Your task to perform on an android device: stop showing notifications on the lock screen Image 0: 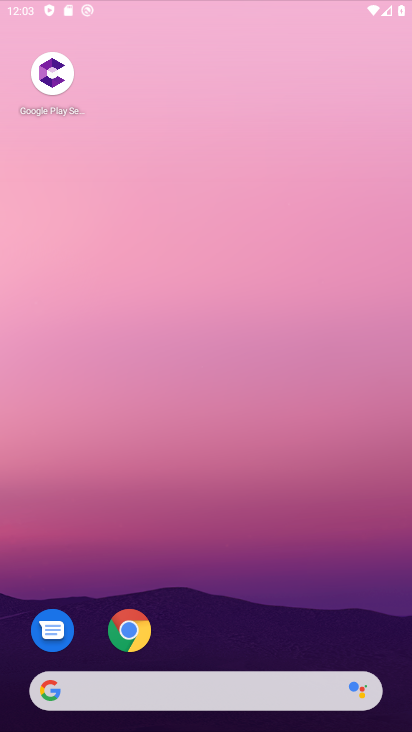
Step 0: click (227, 166)
Your task to perform on an android device: stop showing notifications on the lock screen Image 1: 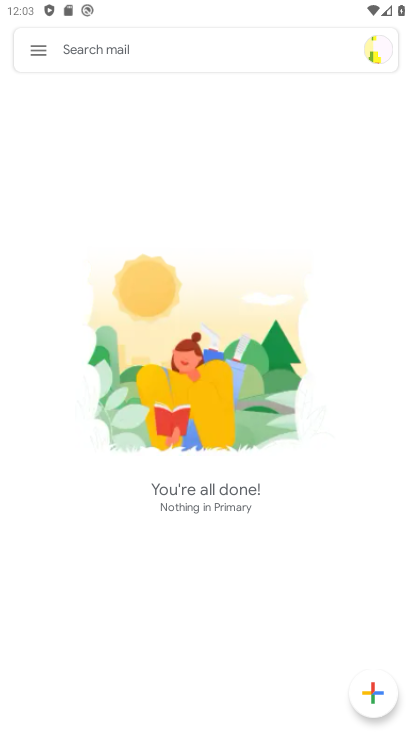
Step 1: drag from (230, 200) to (203, 18)
Your task to perform on an android device: stop showing notifications on the lock screen Image 2: 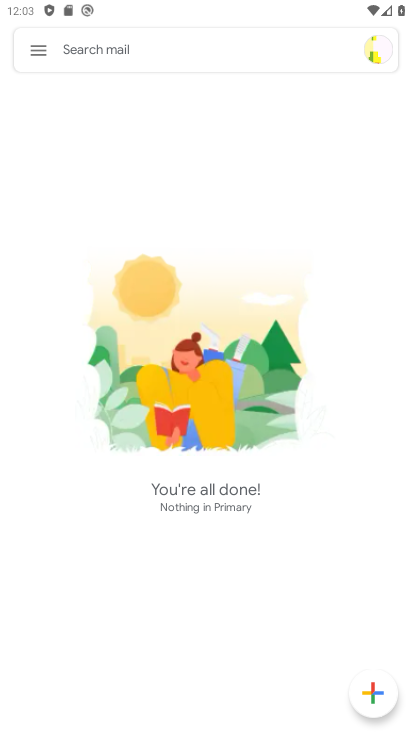
Step 2: press home button
Your task to perform on an android device: stop showing notifications on the lock screen Image 3: 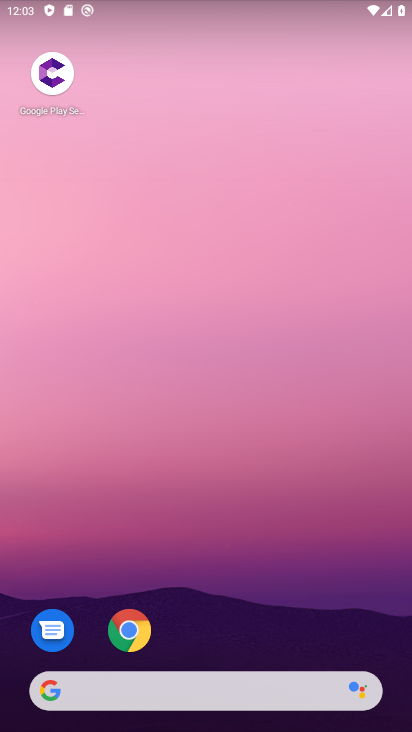
Step 3: drag from (201, 624) to (175, 79)
Your task to perform on an android device: stop showing notifications on the lock screen Image 4: 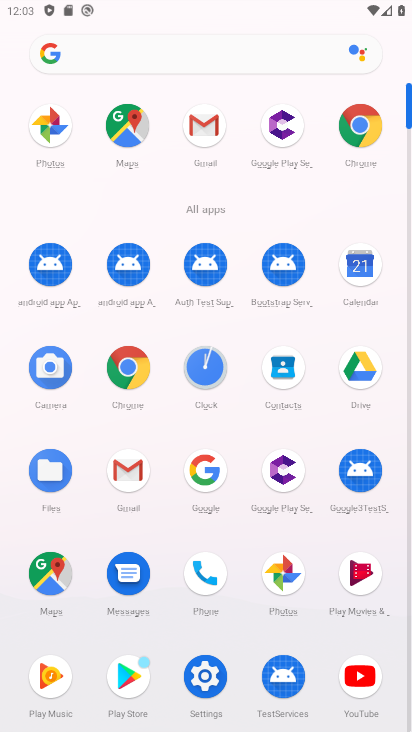
Step 4: click (201, 672)
Your task to perform on an android device: stop showing notifications on the lock screen Image 5: 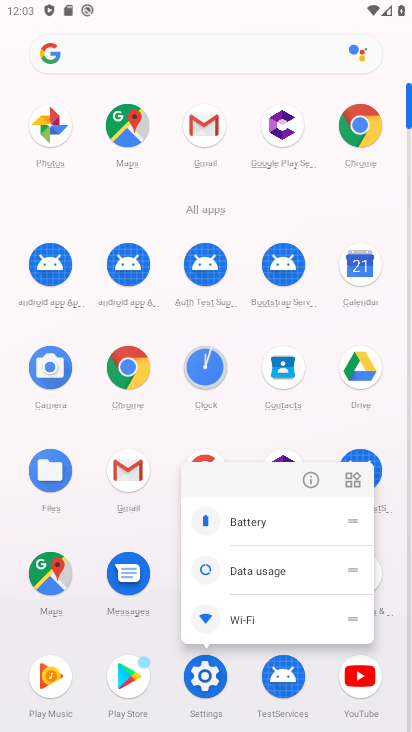
Step 5: click (212, 683)
Your task to perform on an android device: stop showing notifications on the lock screen Image 6: 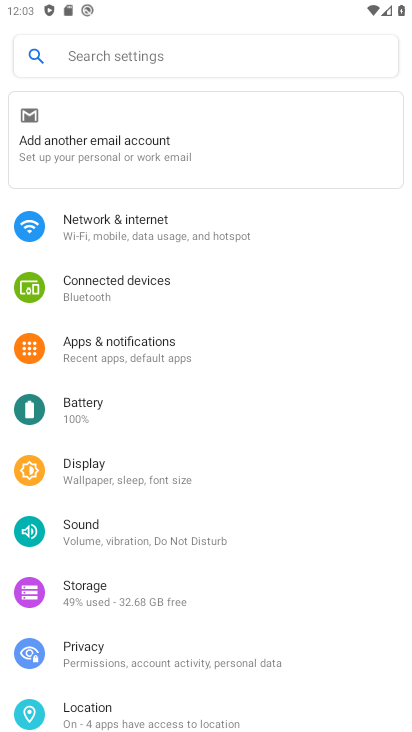
Step 6: click (126, 344)
Your task to perform on an android device: stop showing notifications on the lock screen Image 7: 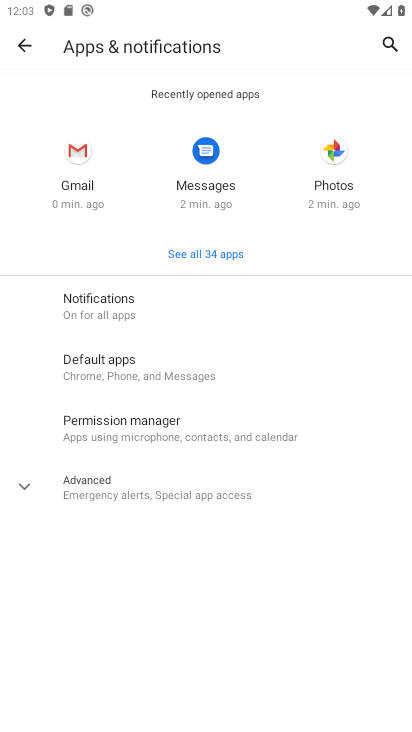
Step 7: click (92, 301)
Your task to perform on an android device: stop showing notifications on the lock screen Image 8: 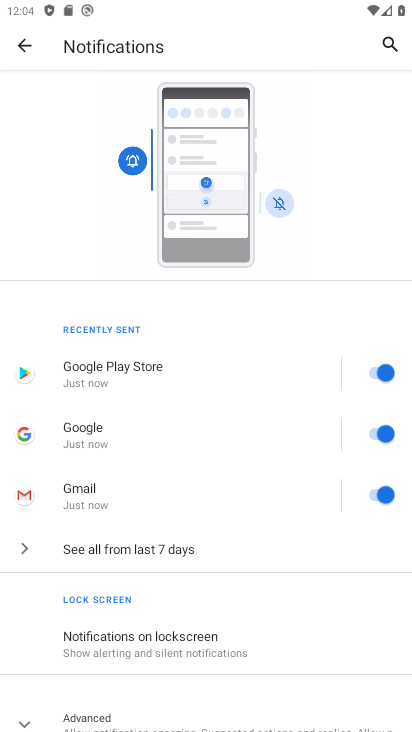
Step 8: click (161, 638)
Your task to perform on an android device: stop showing notifications on the lock screen Image 9: 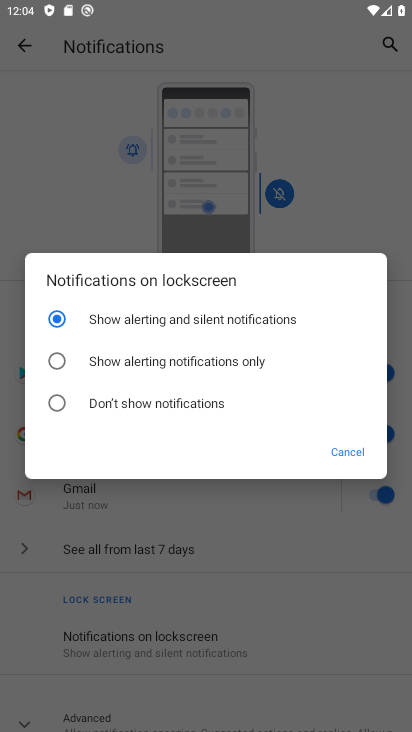
Step 9: click (52, 409)
Your task to perform on an android device: stop showing notifications on the lock screen Image 10: 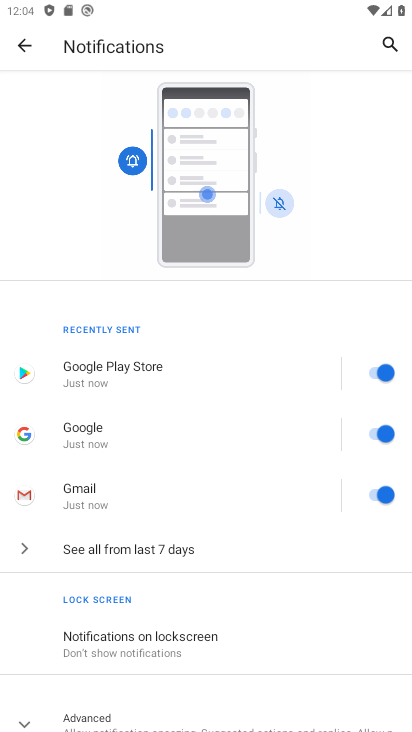
Step 10: task complete